Your task to perform on an android device: change the clock style Image 0: 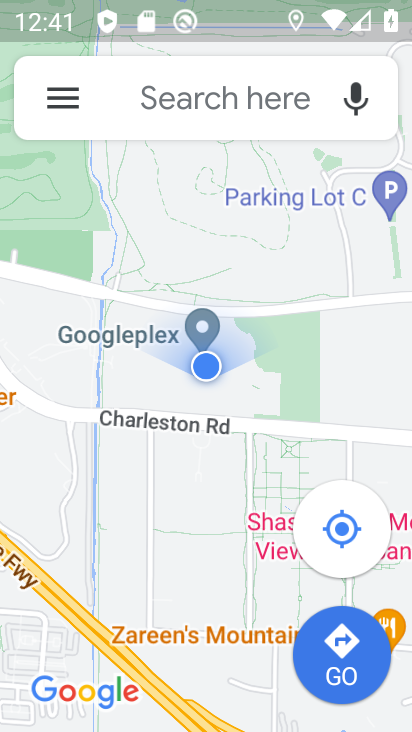
Step 0: press home button
Your task to perform on an android device: change the clock style Image 1: 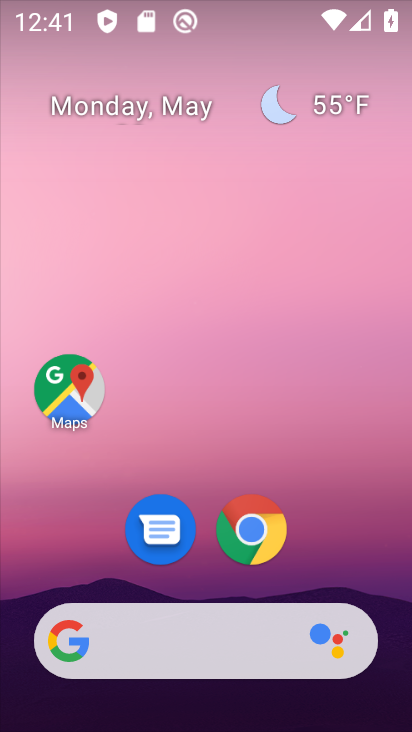
Step 1: drag from (185, 567) to (230, 212)
Your task to perform on an android device: change the clock style Image 2: 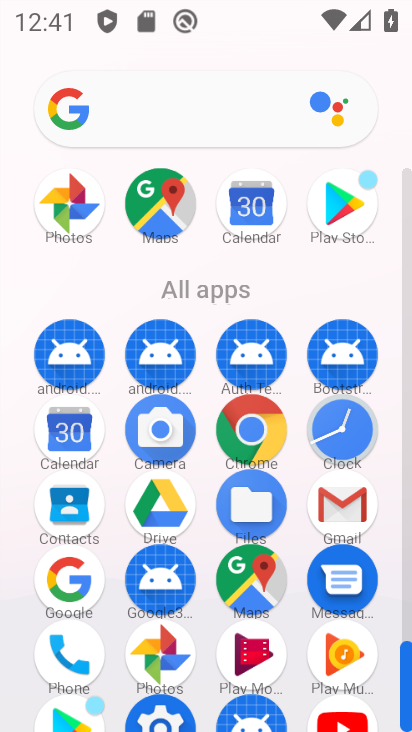
Step 2: click (339, 434)
Your task to perform on an android device: change the clock style Image 3: 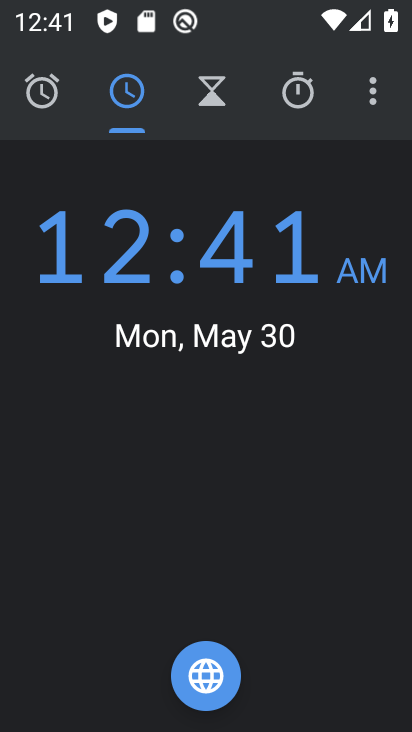
Step 3: click (372, 93)
Your task to perform on an android device: change the clock style Image 4: 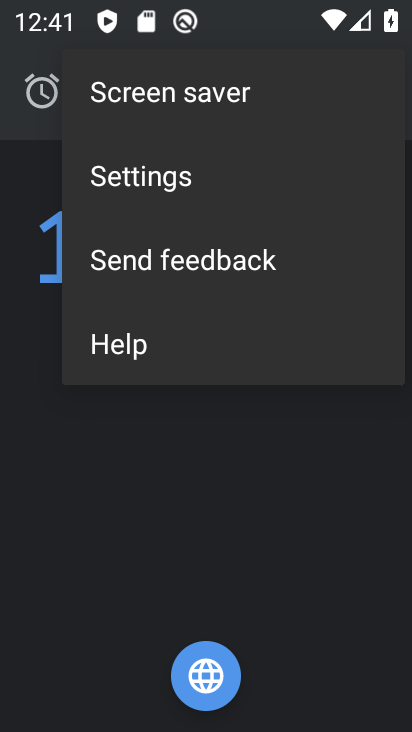
Step 4: click (191, 185)
Your task to perform on an android device: change the clock style Image 5: 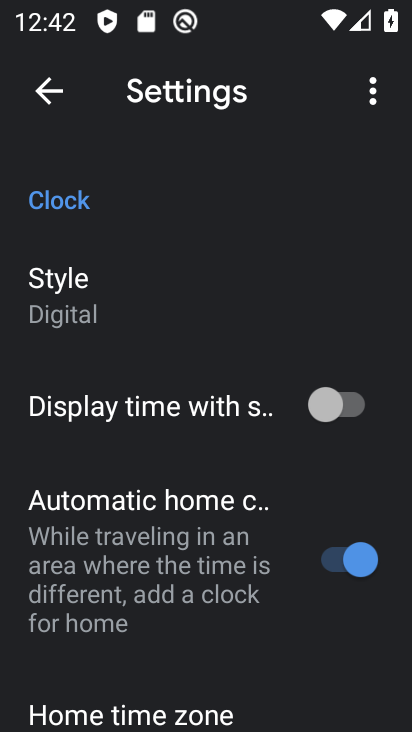
Step 5: click (69, 275)
Your task to perform on an android device: change the clock style Image 6: 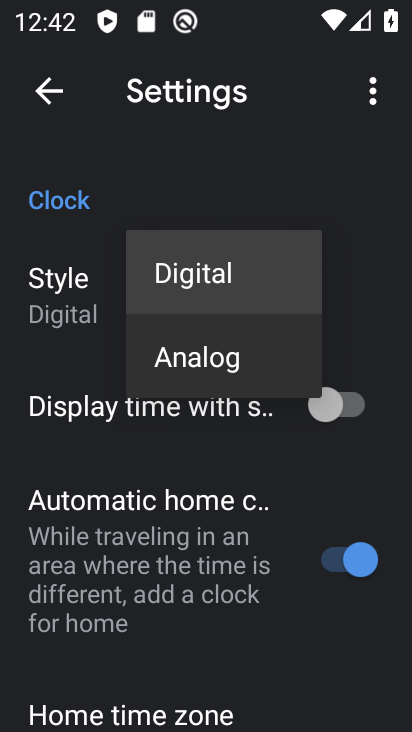
Step 6: click (173, 349)
Your task to perform on an android device: change the clock style Image 7: 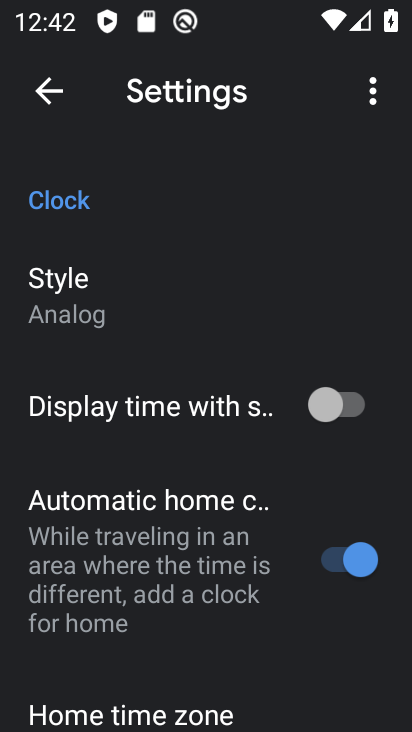
Step 7: task complete